Your task to perform on an android device: clear all cookies in the chrome app Image 0: 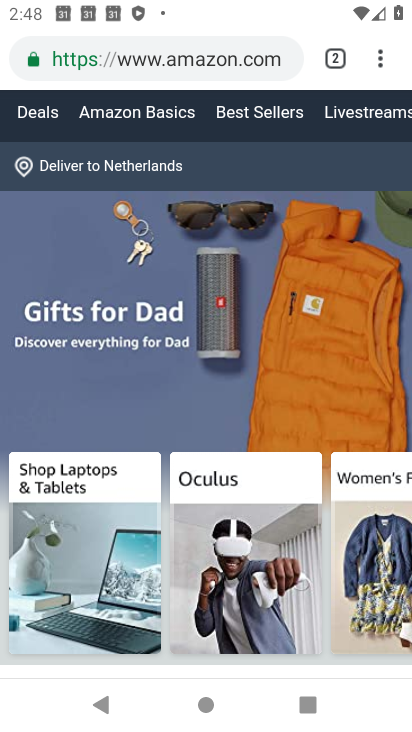
Step 0: drag from (246, 536) to (299, 235)
Your task to perform on an android device: clear all cookies in the chrome app Image 1: 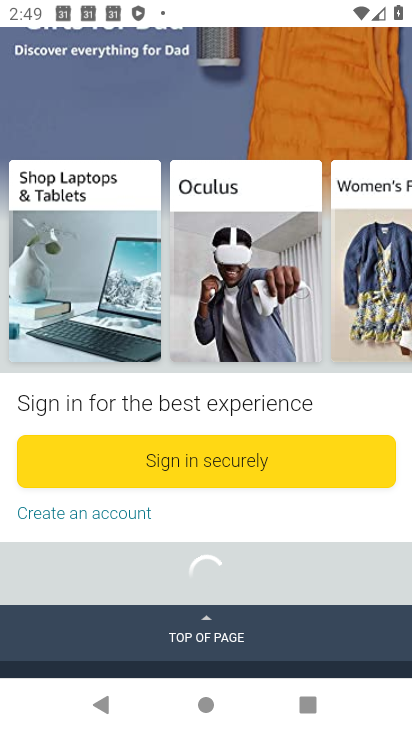
Step 1: drag from (242, 522) to (247, 182)
Your task to perform on an android device: clear all cookies in the chrome app Image 2: 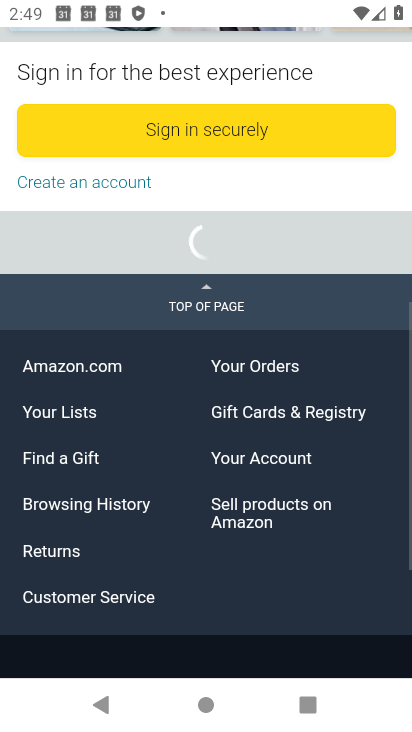
Step 2: drag from (275, 118) to (316, 726)
Your task to perform on an android device: clear all cookies in the chrome app Image 3: 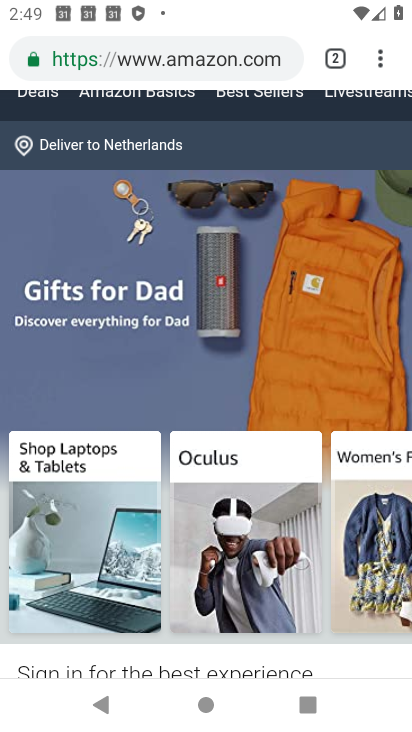
Step 3: drag from (380, 49) to (180, 570)
Your task to perform on an android device: clear all cookies in the chrome app Image 4: 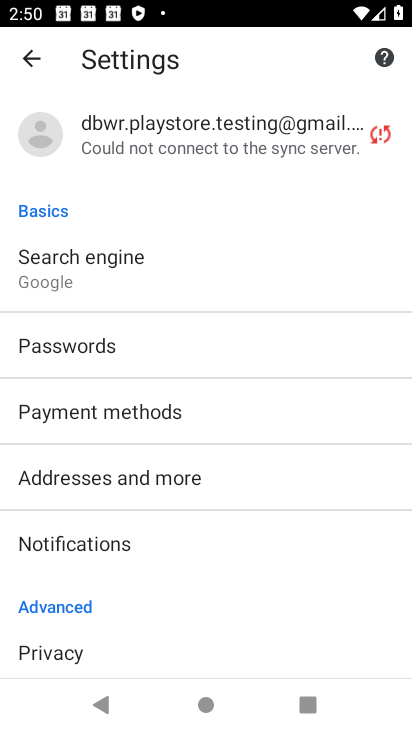
Step 4: drag from (188, 656) to (253, 197)
Your task to perform on an android device: clear all cookies in the chrome app Image 5: 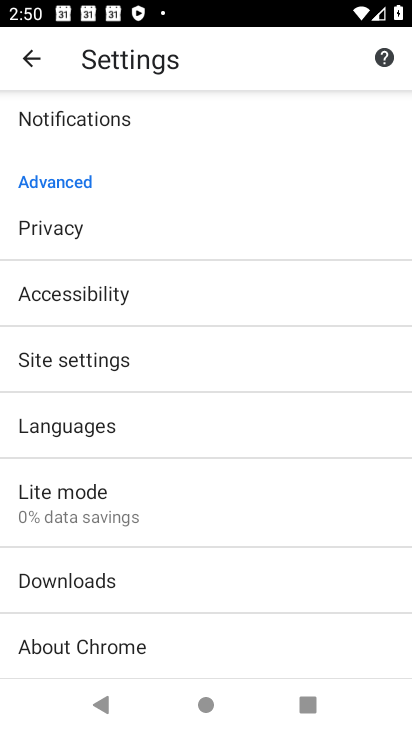
Step 5: click (103, 366)
Your task to perform on an android device: clear all cookies in the chrome app Image 6: 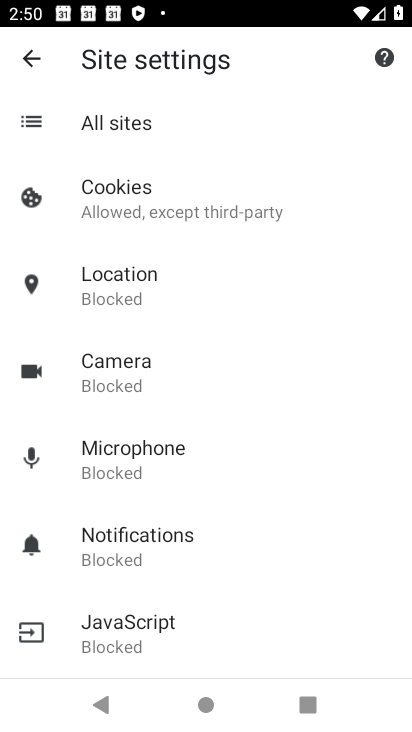
Step 6: click (15, 54)
Your task to perform on an android device: clear all cookies in the chrome app Image 7: 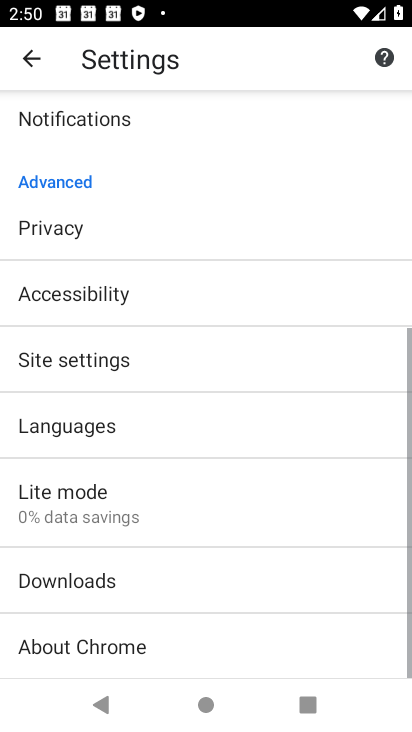
Step 7: click (21, 63)
Your task to perform on an android device: clear all cookies in the chrome app Image 8: 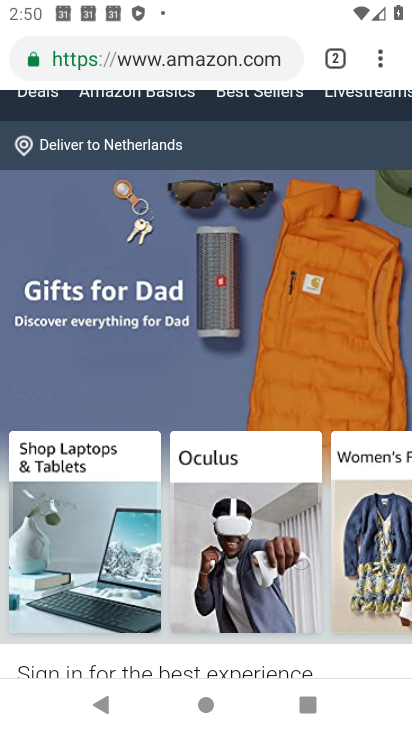
Step 8: click (386, 61)
Your task to perform on an android device: clear all cookies in the chrome app Image 9: 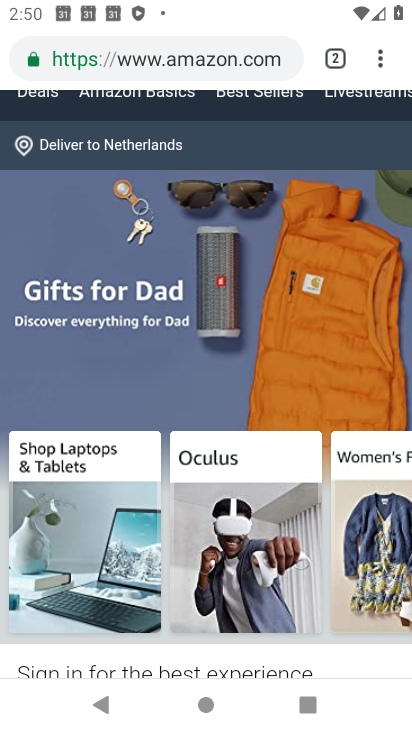
Step 9: drag from (376, 66) to (209, 334)
Your task to perform on an android device: clear all cookies in the chrome app Image 10: 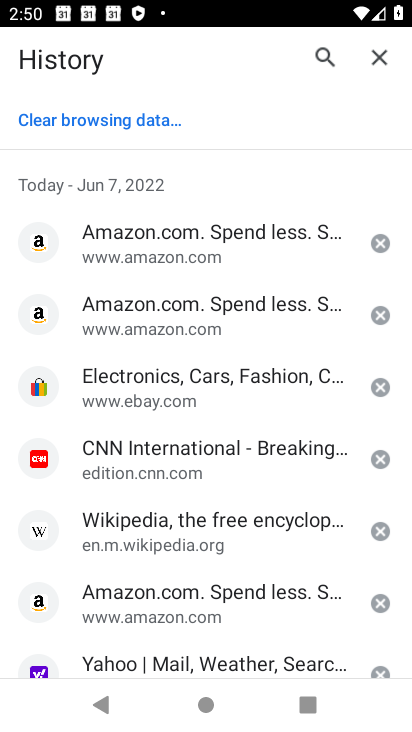
Step 10: drag from (160, 537) to (184, 232)
Your task to perform on an android device: clear all cookies in the chrome app Image 11: 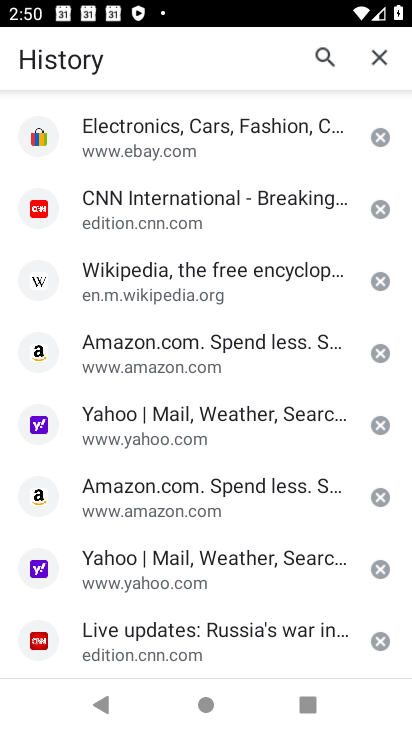
Step 11: drag from (174, 265) to (232, 712)
Your task to perform on an android device: clear all cookies in the chrome app Image 12: 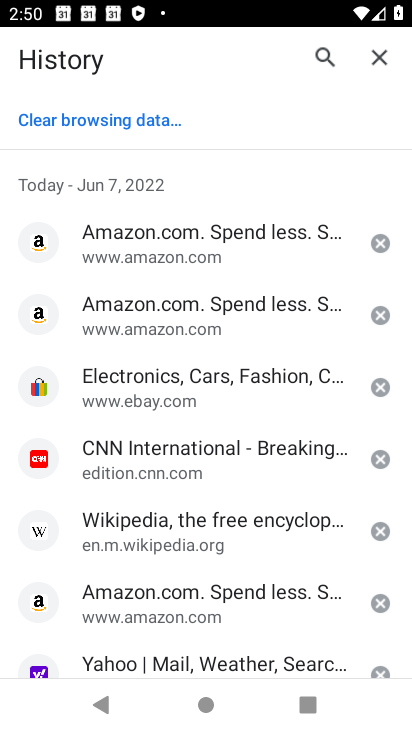
Step 12: click (72, 137)
Your task to perform on an android device: clear all cookies in the chrome app Image 13: 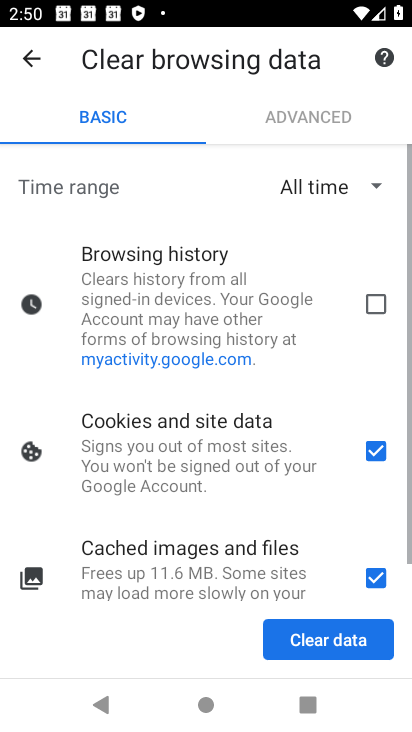
Step 13: click (310, 648)
Your task to perform on an android device: clear all cookies in the chrome app Image 14: 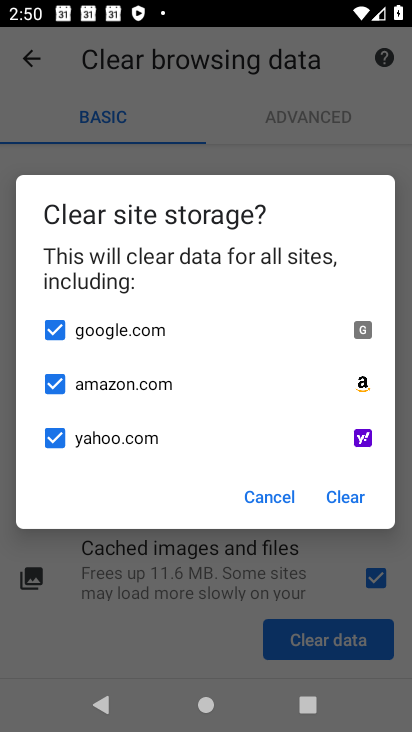
Step 14: click (343, 502)
Your task to perform on an android device: clear all cookies in the chrome app Image 15: 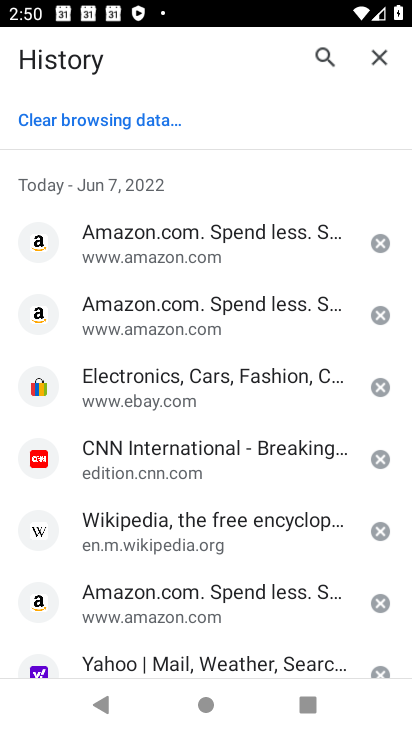
Step 15: task complete